Your task to perform on an android device: choose inbox layout in the gmail app Image 0: 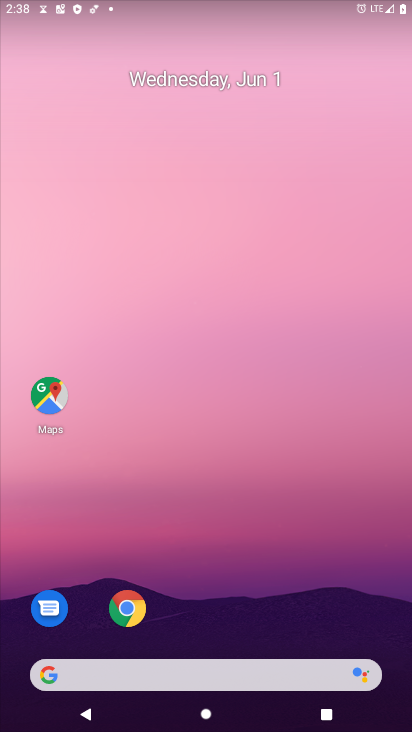
Step 0: drag from (248, 215) to (283, 12)
Your task to perform on an android device: choose inbox layout in the gmail app Image 1: 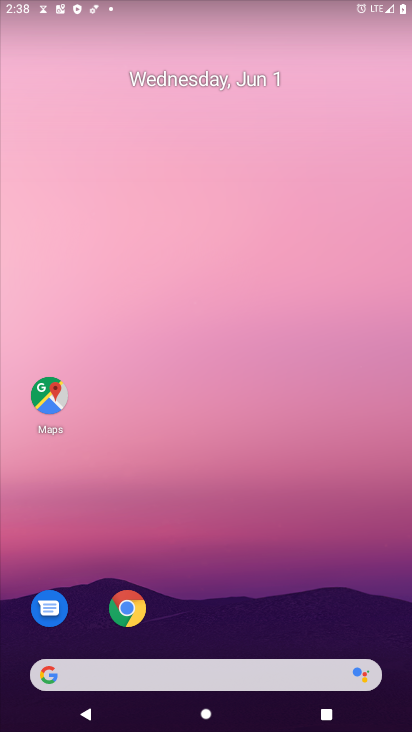
Step 1: drag from (255, 570) to (345, 79)
Your task to perform on an android device: choose inbox layout in the gmail app Image 2: 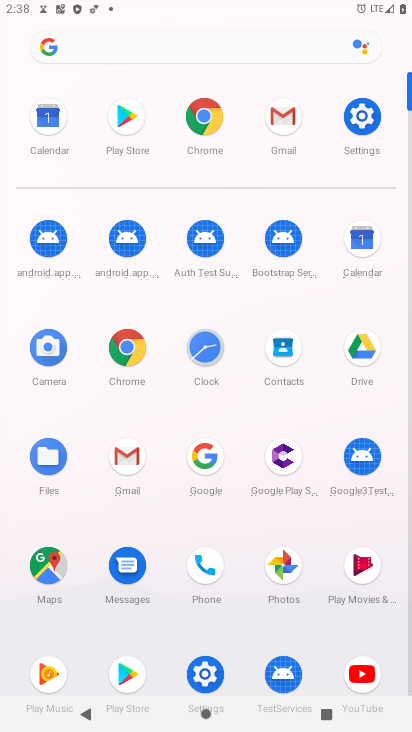
Step 2: click (276, 114)
Your task to perform on an android device: choose inbox layout in the gmail app Image 3: 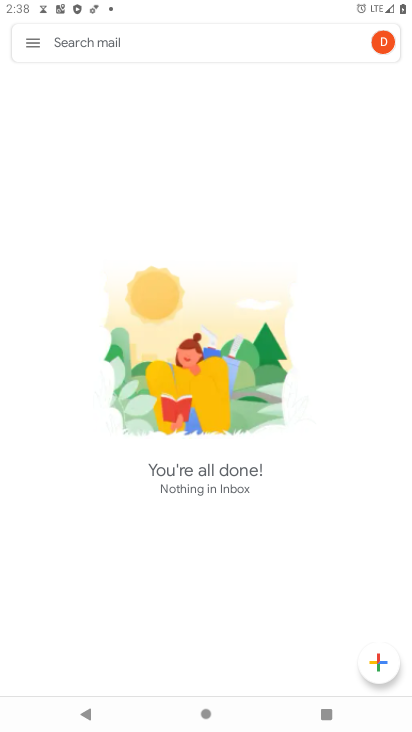
Step 3: click (38, 28)
Your task to perform on an android device: choose inbox layout in the gmail app Image 4: 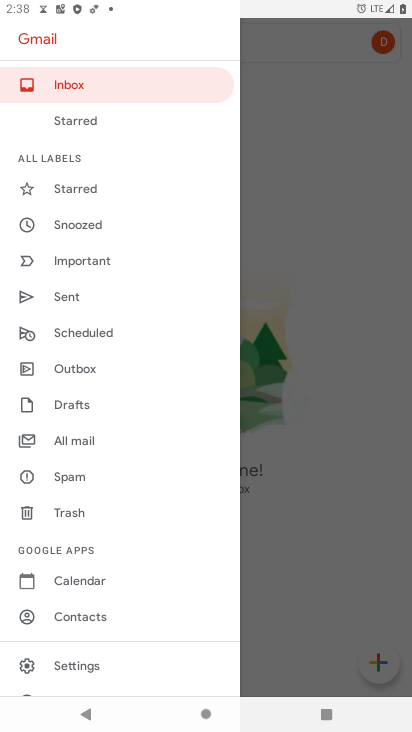
Step 4: drag from (61, 583) to (103, 251)
Your task to perform on an android device: choose inbox layout in the gmail app Image 5: 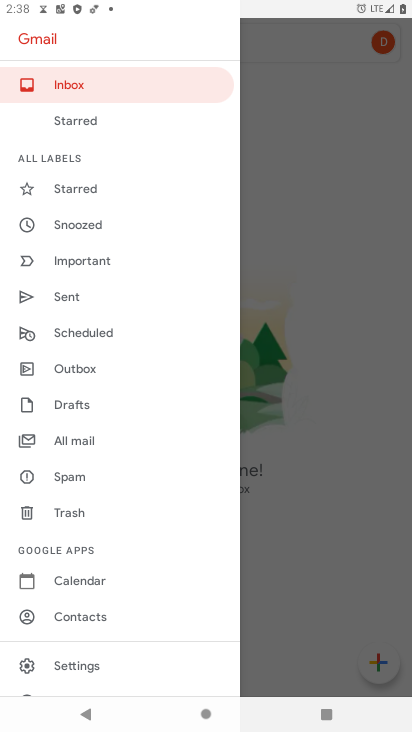
Step 5: click (143, 653)
Your task to perform on an android device: choose inbox layout in the gmail app Image 6: 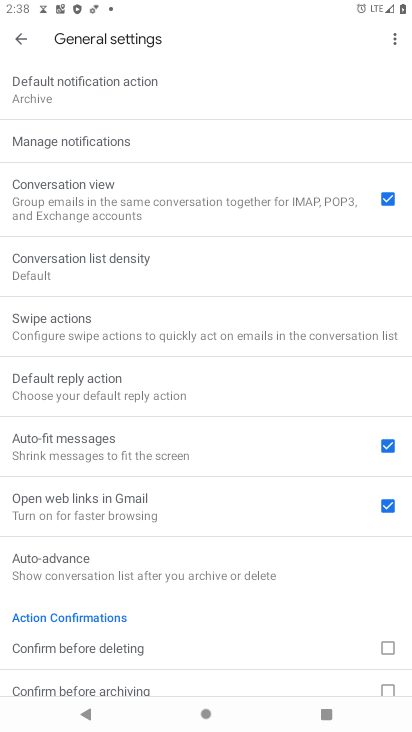
Step 6: task complete